Your task to perform on an android device: Open Amazon Image 0: 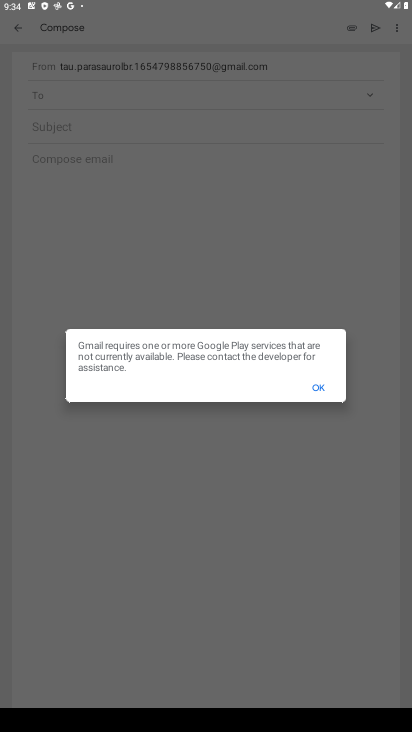
Step 0: press home button
Your task to perform on an android device: Open Amazon Image 1: 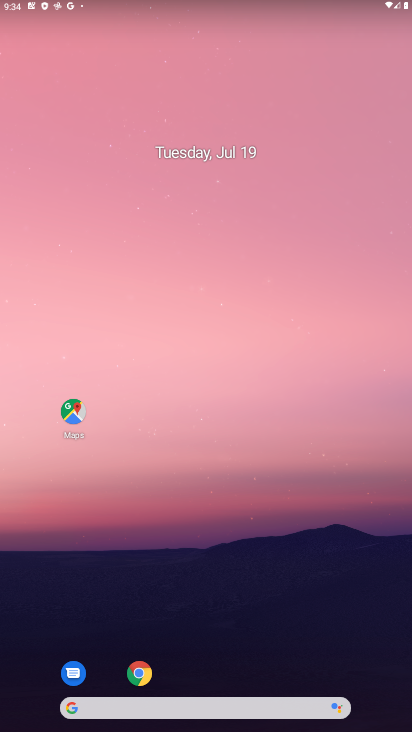
Step 1: click (144, 684)
Your task to perform on an android device: Open Amazon Image 2: 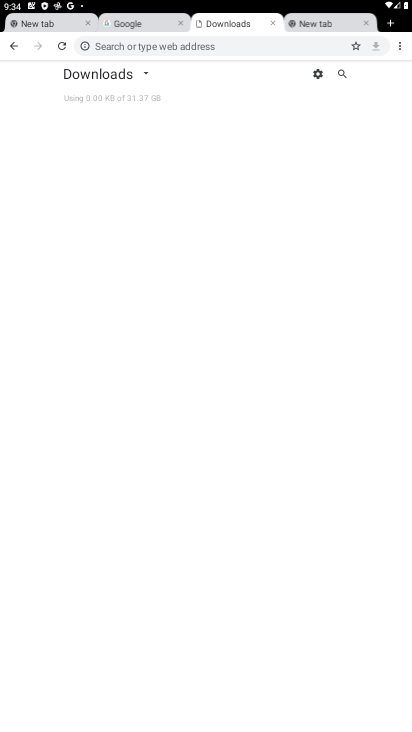
Step 2: click (314, 45)
Your task to perform on an android device: Open Amazon Image 3: 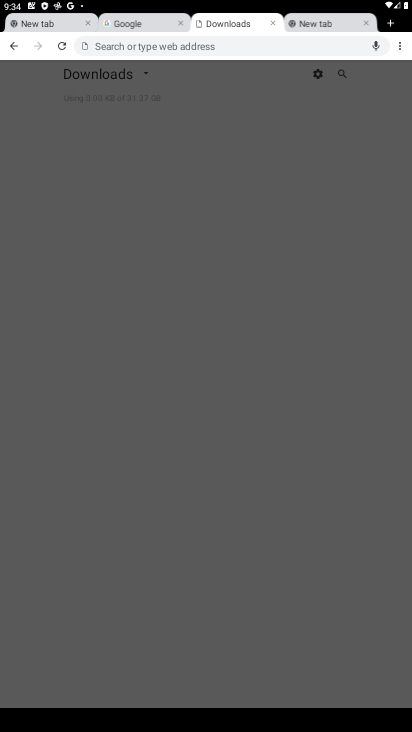
Step 3: type "amazon"
Your task to perform on an android device: Open Amazon Image 4: 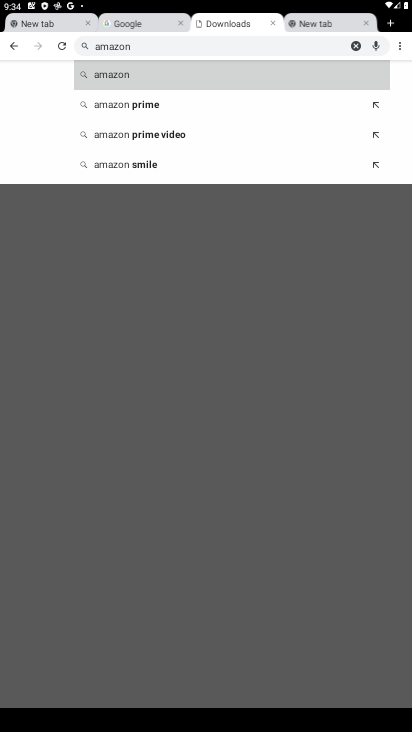
Step 4: click (137, 106)
Your task to perform on an android device: Open Amazon Image 5: 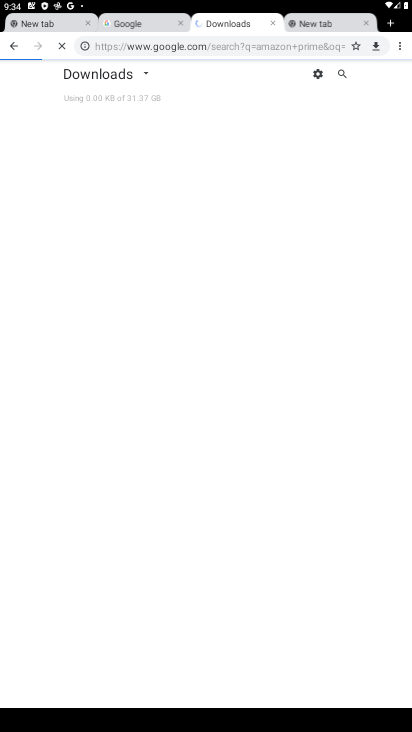
Step 5: task complete